Your task to perform on an android device: find snoozed emails in the gmail app Image 0: 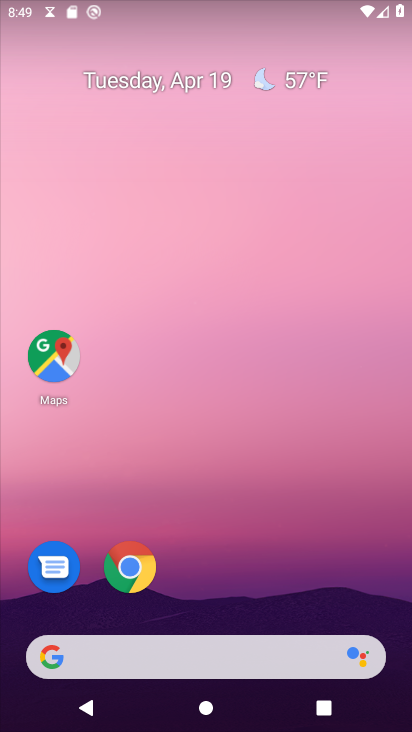
Step 0: drag from (260, 437) to (257, 20)
Your task to perform on an android device: find snoozed emails in the gmail app Image 1: 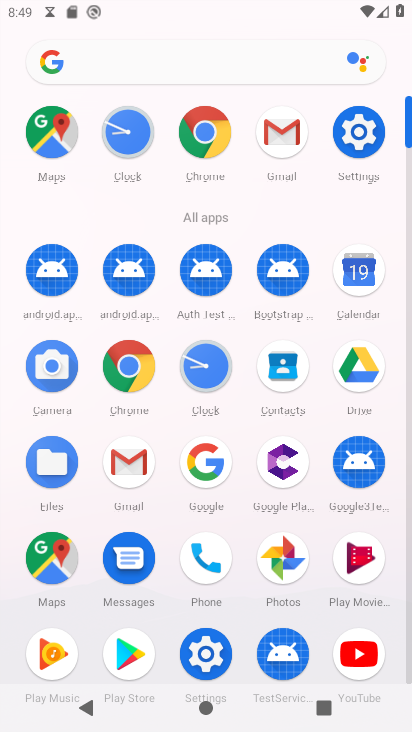
Step 1: click (273, 137)
Your task to perform on an android device: find snoozed emails in the gmail app Image 2: 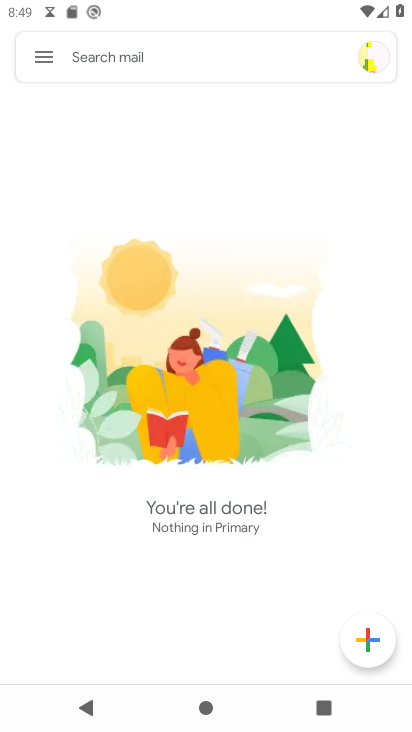
Step 2: click (55, 61)
Your task to perform on an android device: find snoozed emails in the gmail app Image 3: 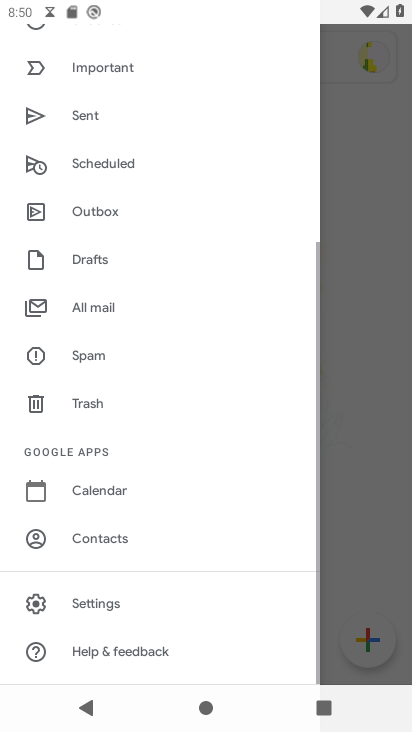
Step 3: drag from (200, 237) to (58, 589)
Your task to perform on an android device: find snoozed emails in the gmail app Image 4: 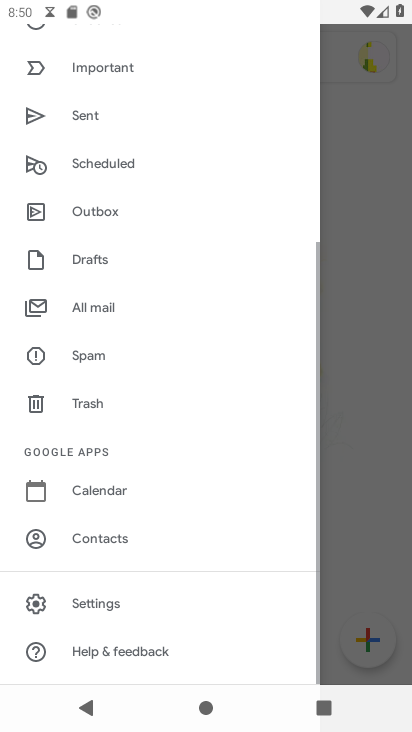
Step 4: drag from (117, 94) to (92, 589)
Your task to perform on an android device: find snoozed emails in the gmail app Image 5: 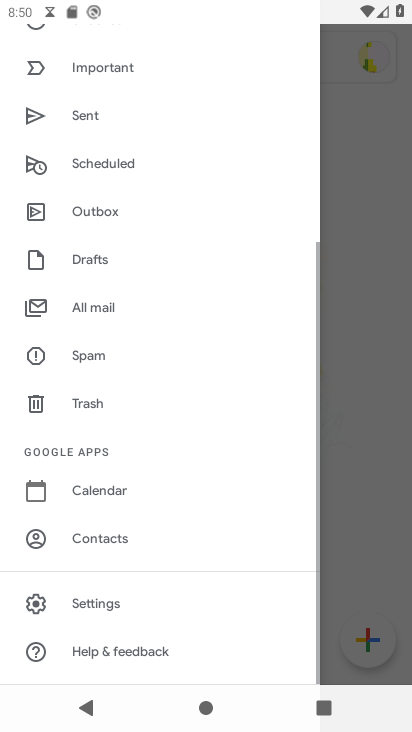
Step 5: drag from (133, 199) to (118, 561)
Your task to perform on an android device: find snoozed emails in the gmail app Image 6: 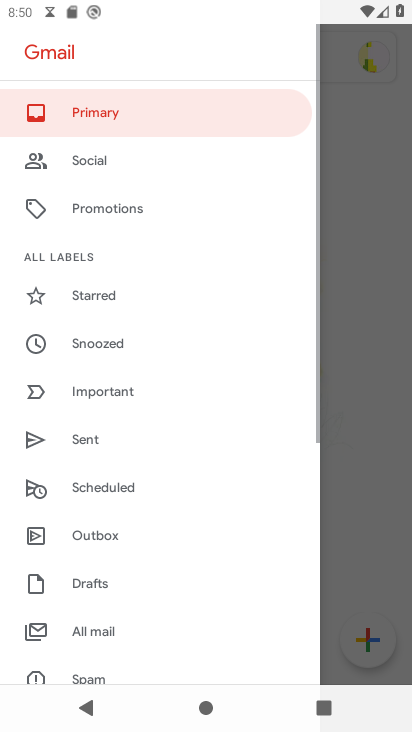
Step 6: drag from (134, 585) to (225, 189)
Your task to perform on an android device: find snoozed emails in the gmail app Image 7: 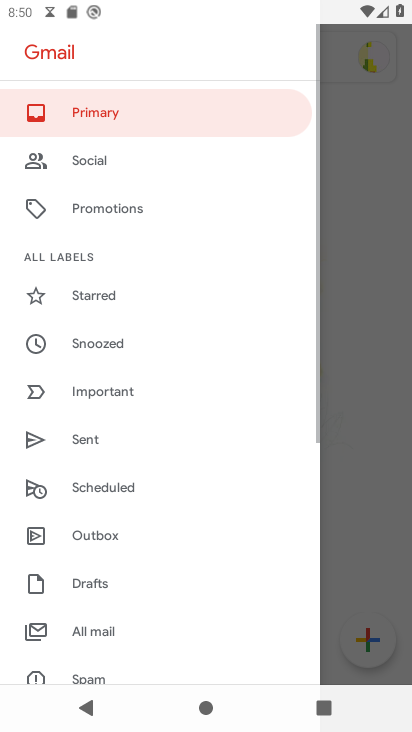
Step 7: drag from (150, 538) to (207, 170)
Your task to perform on an android device: find snoozed emails in the gmail app Image 8: 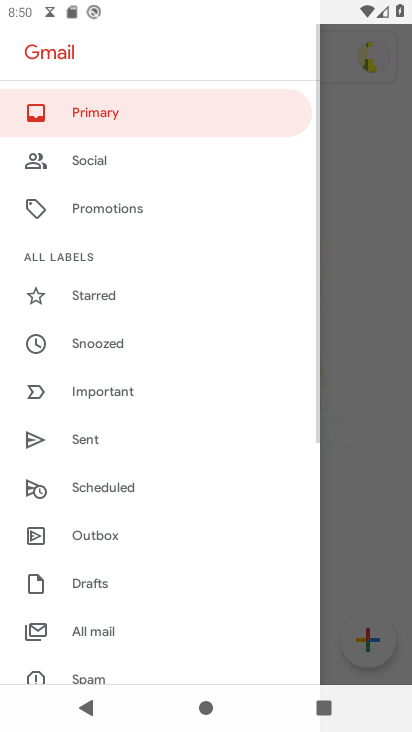
Step 8: drag from (163, 553) to (260, 167)
Your task to perform on an android device: find snoozed emails in the gmail app Image 9: 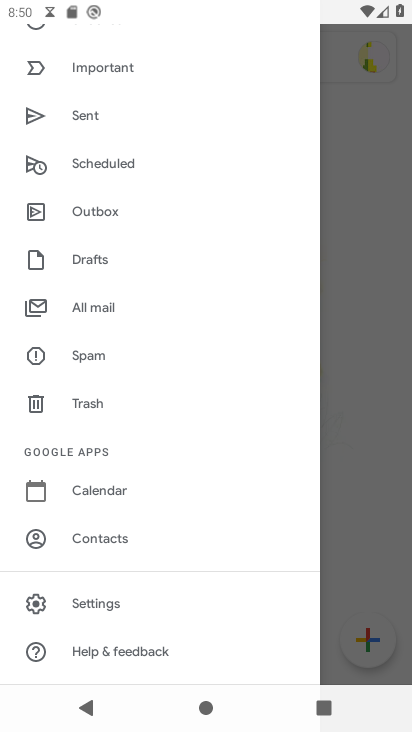
Step 9: click (97, 302)
Your task to perform on an android device: find snoozed emails in the gmail app Image 10: 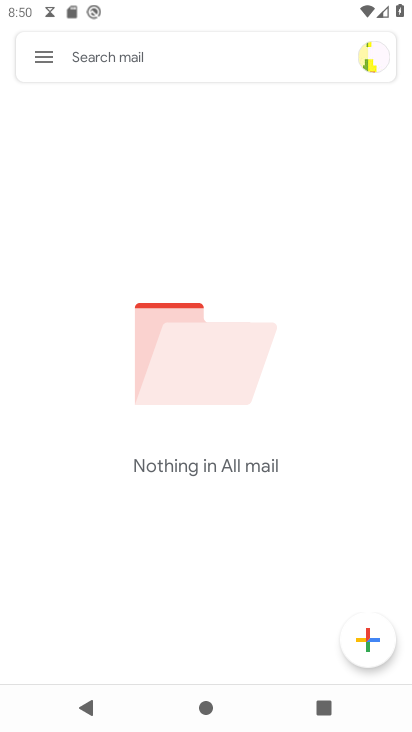
Step 10: task complete